Your task to perform on an android device: Open Chrome and go to settings Image 0: 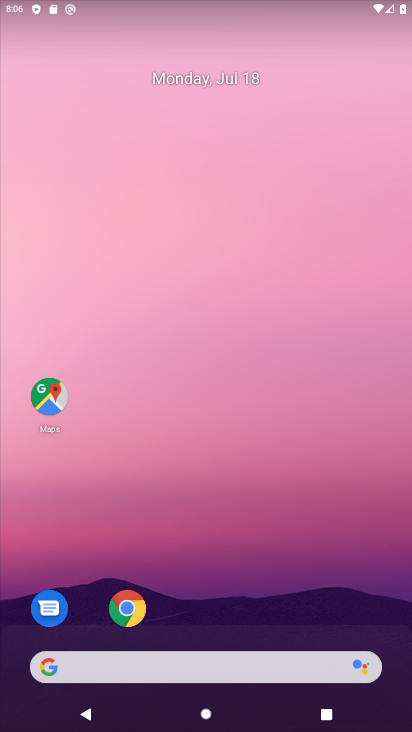
Step 0: drag from (230, 704) to (248, 110)
Your task to perform on an android device: Open Chrome and go to settings Image 1: 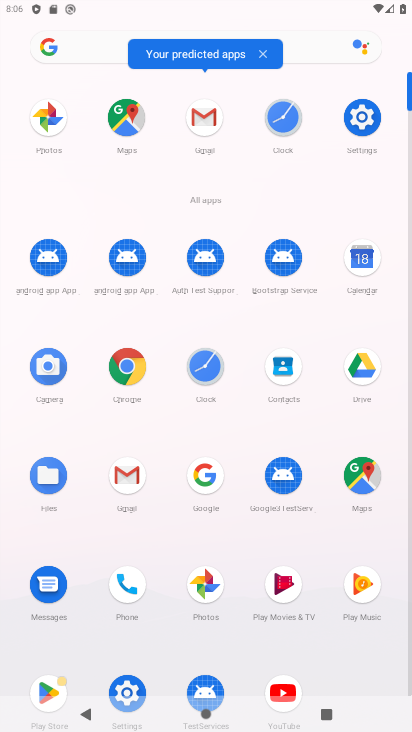
Step 1: click (129, 363)
Your task to perform on an android device: Open Chrome and go to settings Image 2: 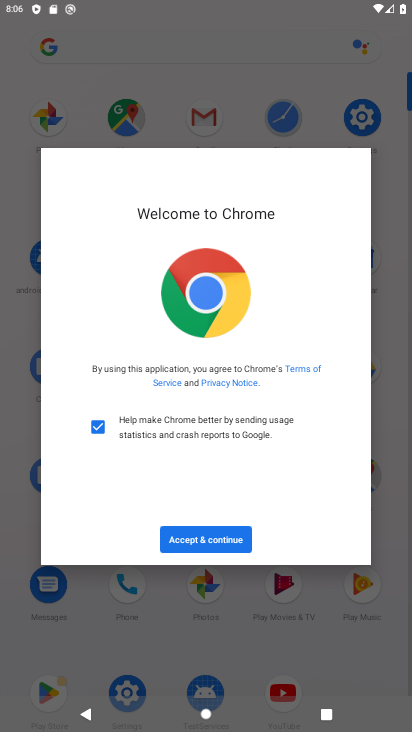
Step 2: click (192, 536)
Your task to perform on an android device: Open Chrome and go to settings Image 3: 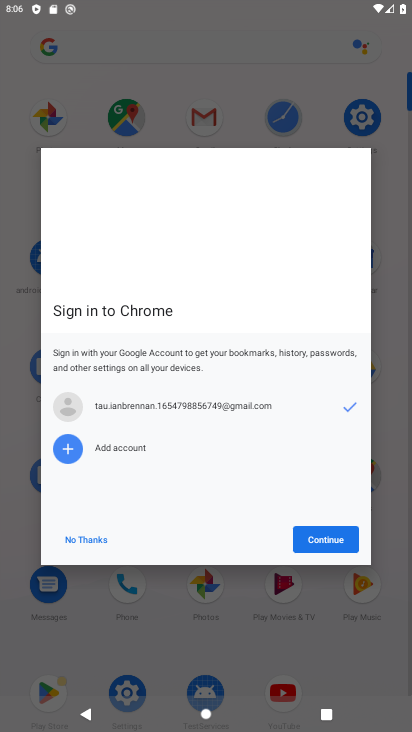
Step 3: click (332, 537)
Your task to perform on an android device: Open Chrome and go to settings Image 4: 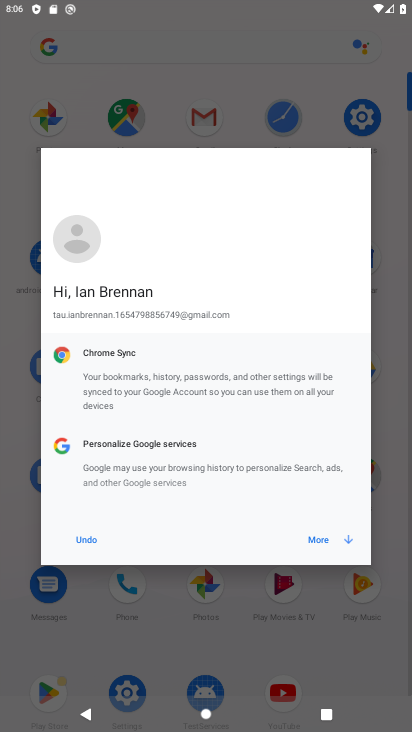
Step 4: click (314, 535)
Your task to perform on an android device: Open Chrome and go to settings Image 5: 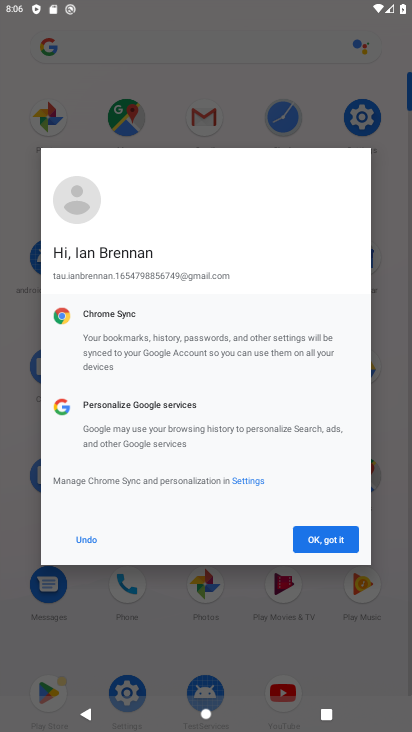
Step 5: click (314, 535)
Your task to perform on an android device: Open Chrome and go to settings Image 6: 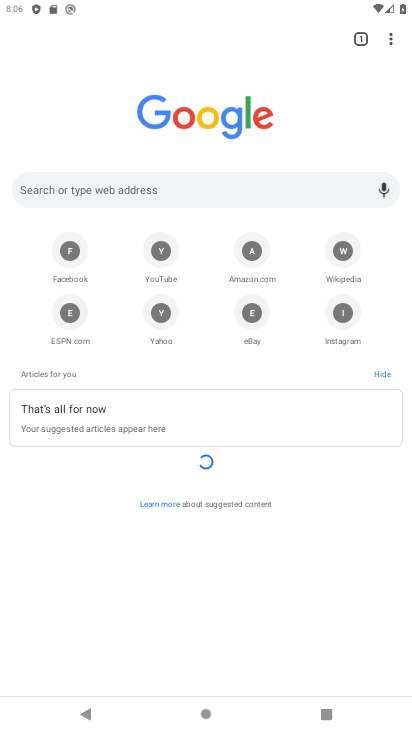
Step 6: click (387, 40)
Your task to perform on an android device: Open Chrome and go to settings Image 7: 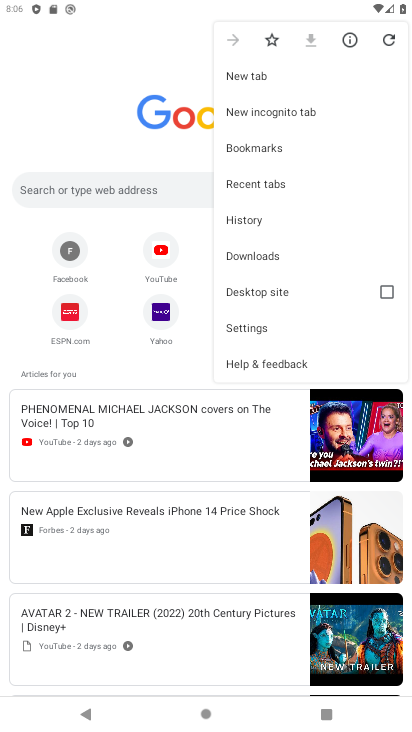
Step 7: click (244, 322)
Your task to perform on an android device: Open Chrome and go to settings Image 8: 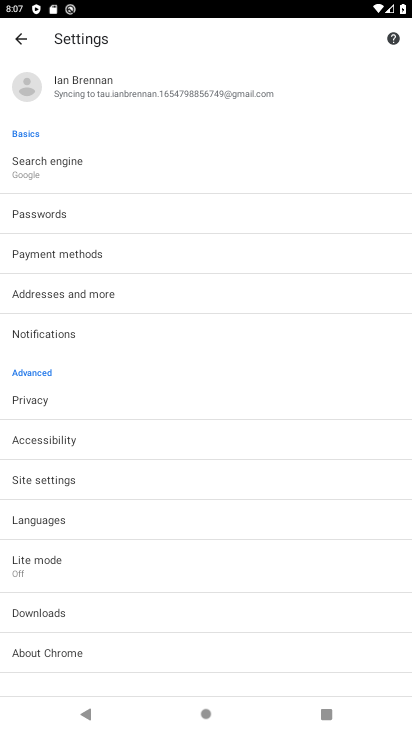
Step 8: task complete